Your task to perform on an android device: What's the weather? Image 0: 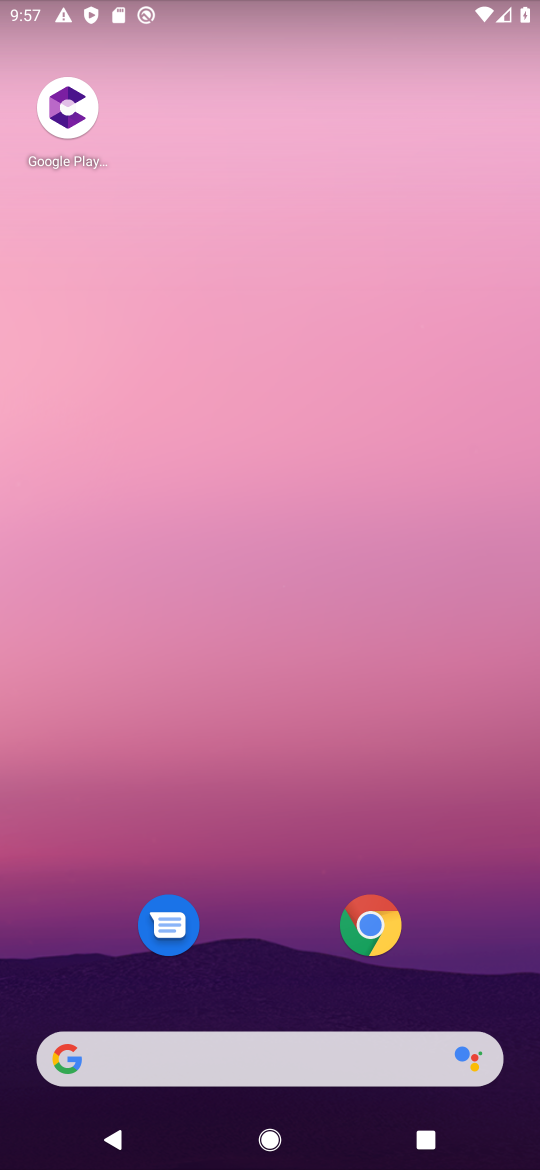
Step 0: drag from (487, 986) to (429, 44)
Your task to perform on an android device: What's the weather? Image 1: 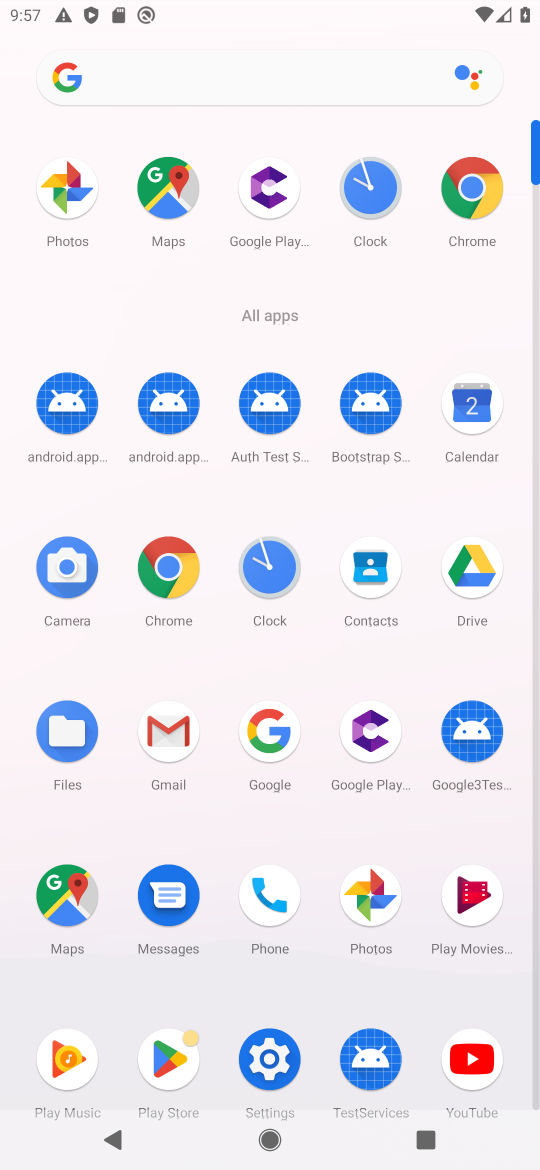
Step 1: click (471, 174)
Your task to perform on an android device: What's the weather? Image 2: 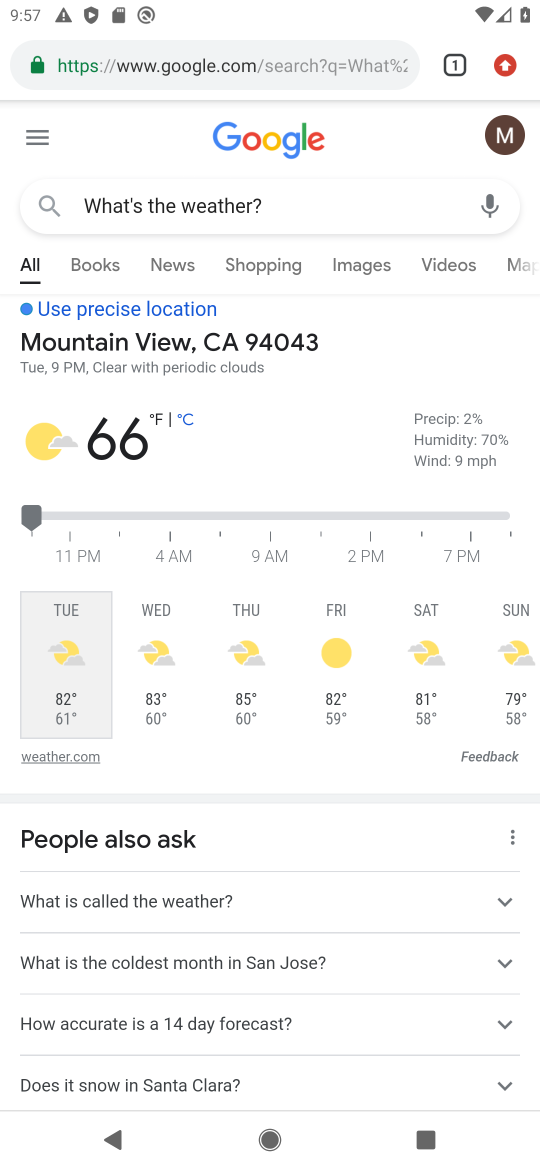
Step 2: task complete